Your task to perform on an android device: toggle improve location accuracy Image 0: 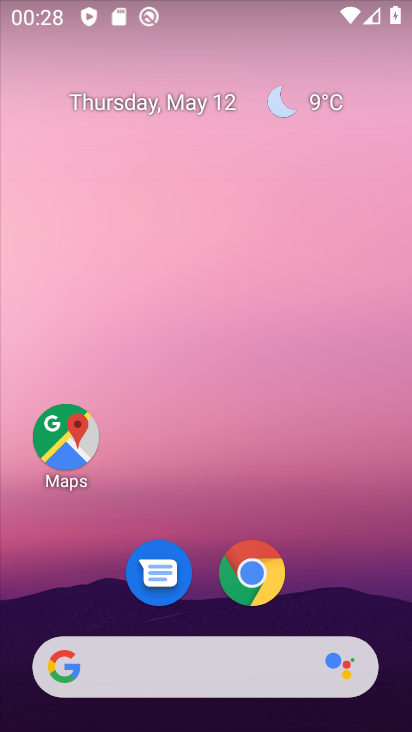
Step 0: drag from (277, 477) to (139, 1)
Your task to perform on an android device: toggle improve location accuracy Image 1: 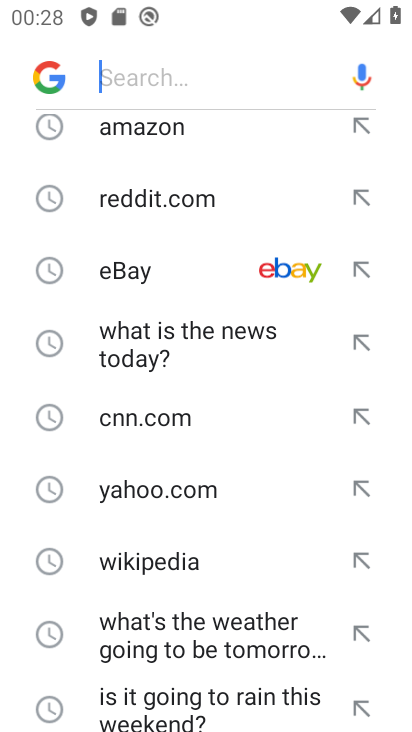
Step 1: press home button
Your task to perform on an android device: toggle improve location accuracy Image 2: 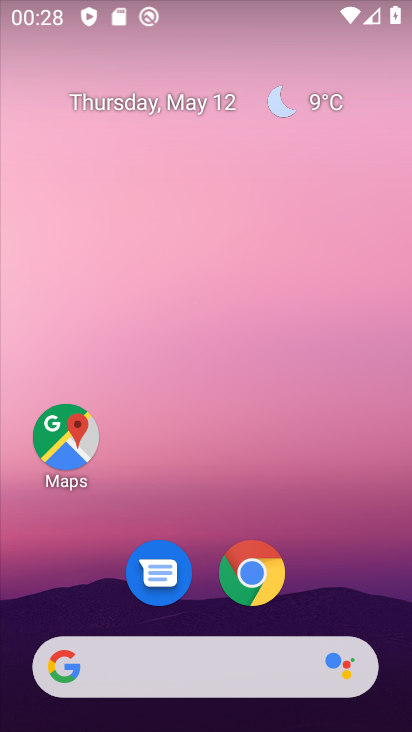
Step 2: drag from (208, 528) to (276, 14)
Your task to perform on an android device: toggle improve location accuracy Image 3: 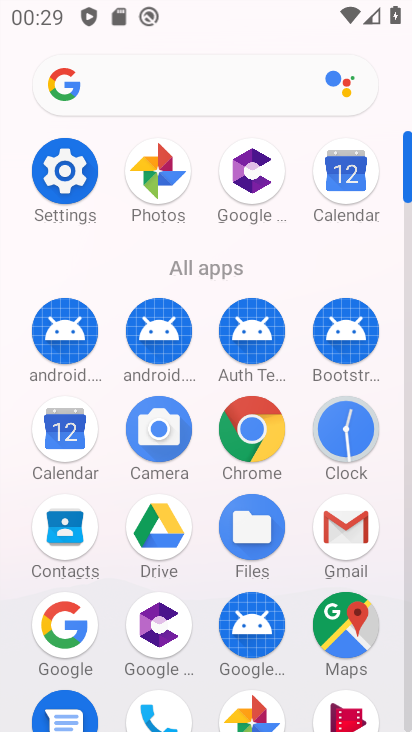
Step 3: click (53, 188)
Your task to perform on an android device: toggle improve location accuracy Image 4: 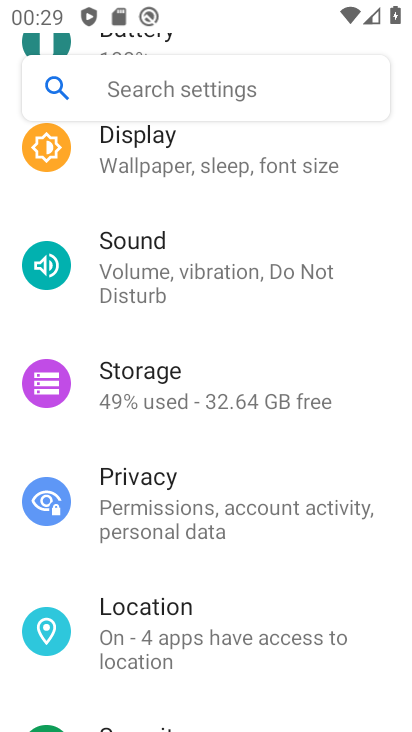
Step 4: drag from (172, 584) to (179, 398)
Your task to perform on an android device: toggle improve location accuracy Image 5: 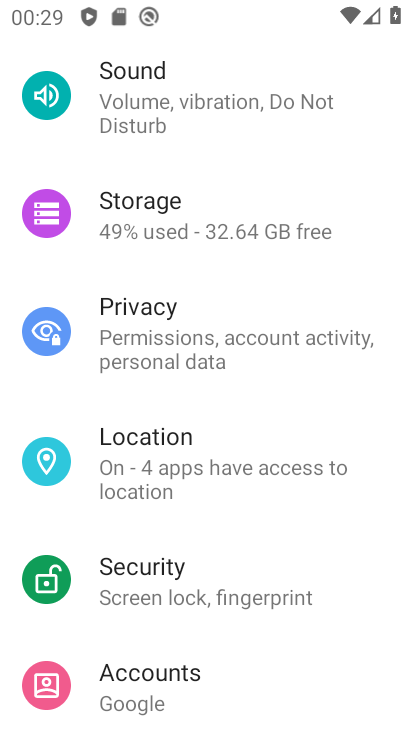
Step 5: click (173, 466)
Your task to perform on an android device: toggle improve location accuracy Image 6: 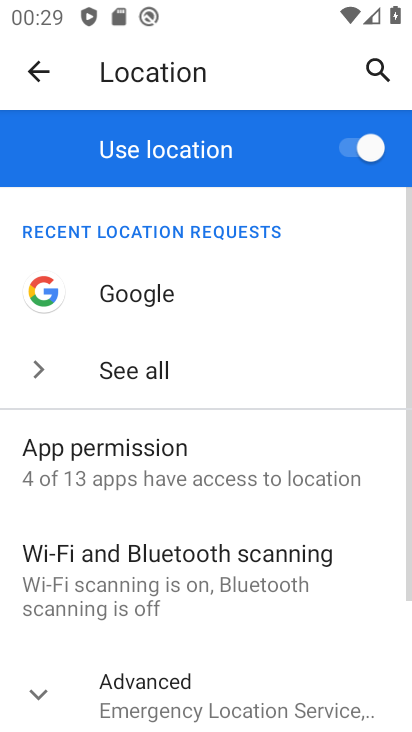
Step 6: drag from (162, 611) to (169, 377)
Your task to perform on an android device: toggle improve location accuracy Image 7: 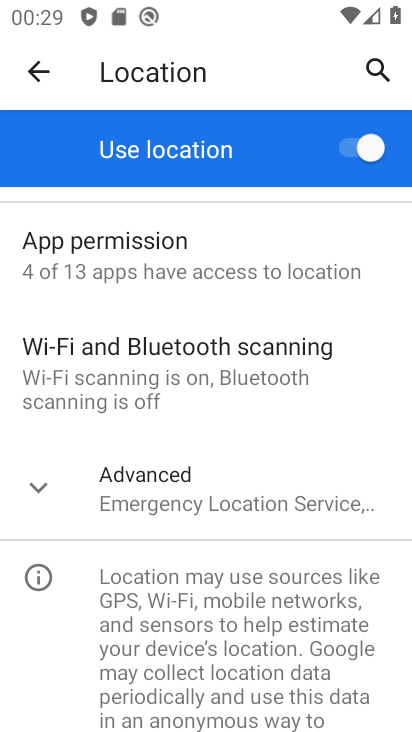
Step 7: click (136, 493)
Your task to perform on an android device: toggle improve location accuracy Image 8: 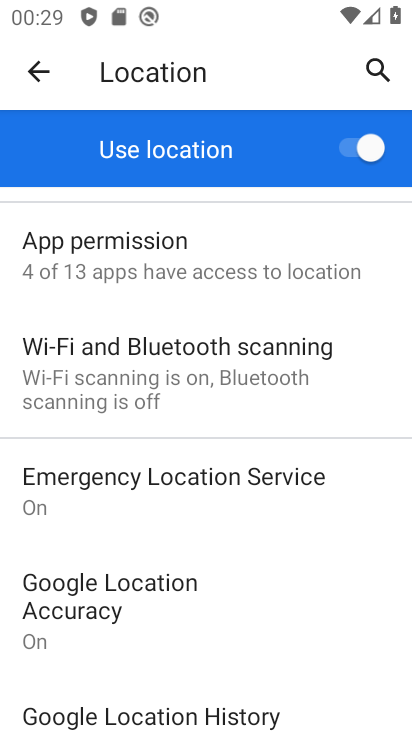
Step 8: drag from (190, 607) to (193, 331)
Your task to perform on an android device: toggle improve location accuracy Image 9: 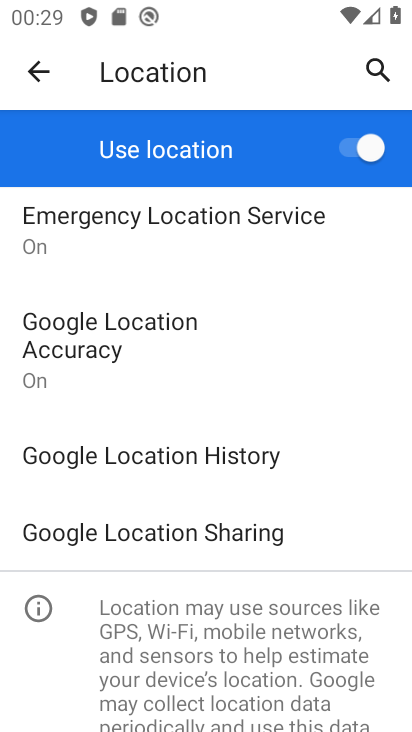
Step 9: click (91, 353)
Your task to perform on an android device: toggle improve location accuracy Image 10: 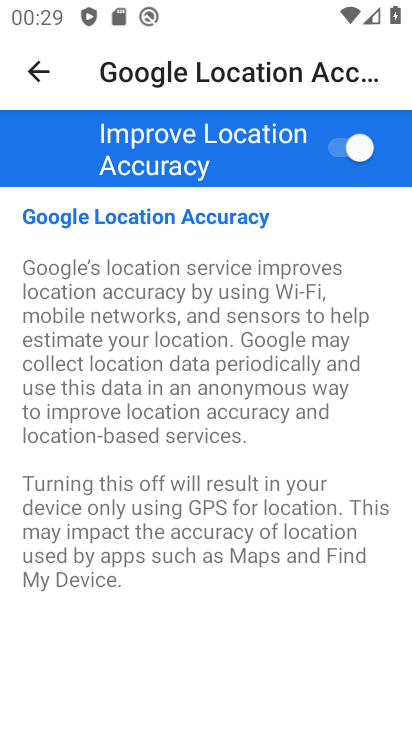
Step 10: click (345, 148)
Your task to perform on an android device: toggle improve location accuracy Image 11: 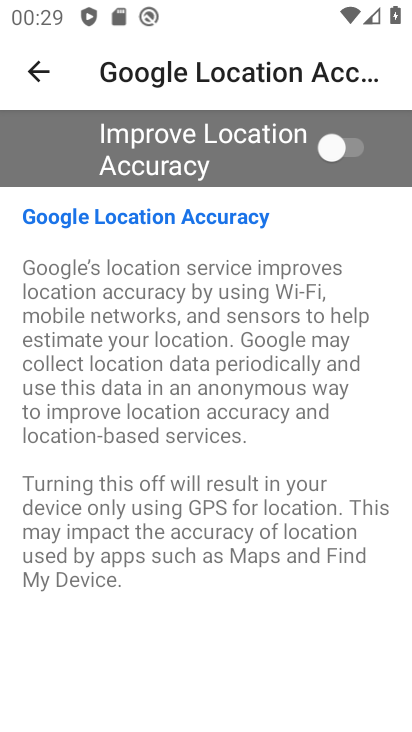
Step 11: task complete